Your task to perform on an android device: Open Youtube and go to "Your channel" Image 0: 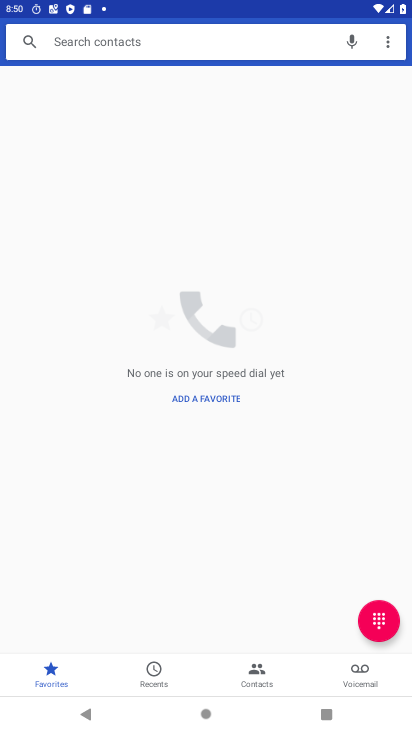
Step 0: press home button
Your task to perform on an android device: Open Youtube and go to "Your channel" Image 1: 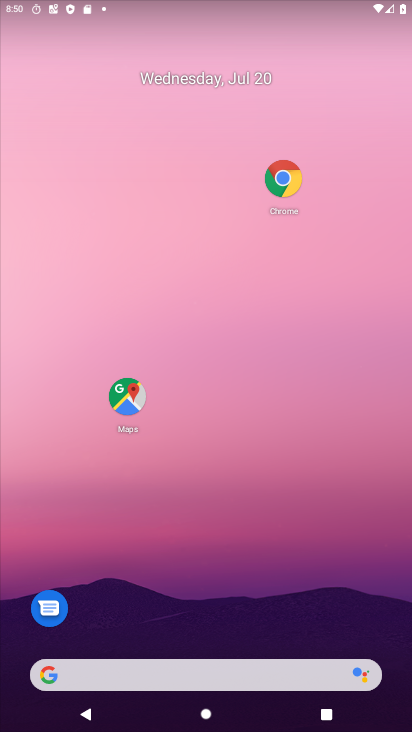
Step 1: drag from (247, 590) to (180, 87)
Your task to perform on an android device: Open Youtube and go to "Your channel" Image 2: 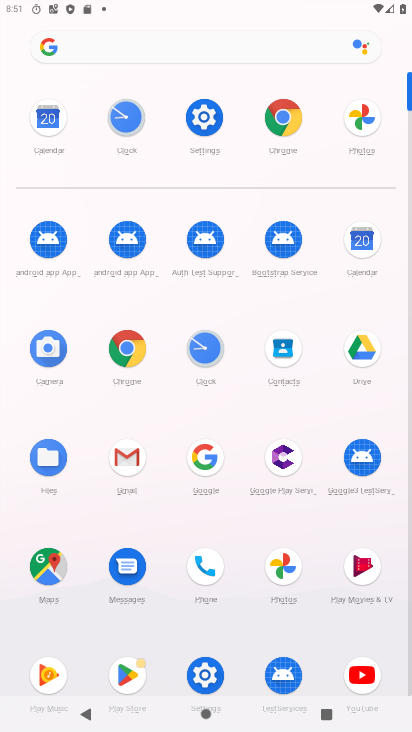
Step 2: click (379, 677)
Your task to perform on an android device: Open Youtube and go to "Your channel" Image 3: 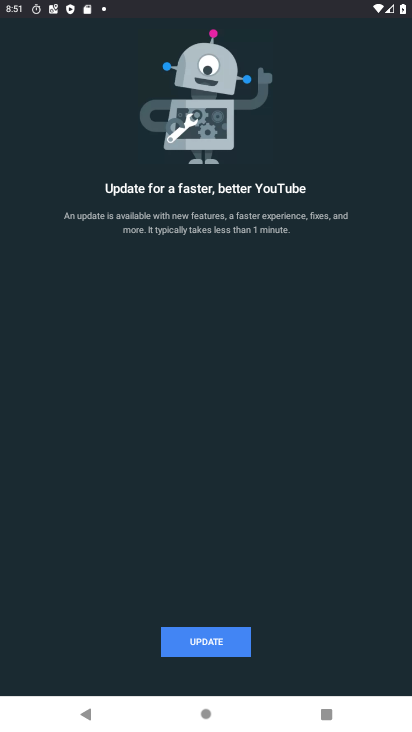
Step 3: click (226, 645)
Your task to perform on an android device: Open Youtube and go to "Your channel" Image 4: 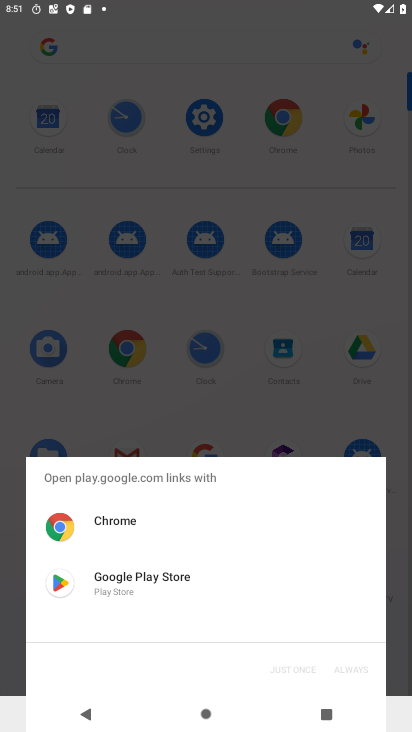
Step 4: click (199, 590)
Your task to perform on an android device: Open Youtube and go to "Your channel" Image 5: 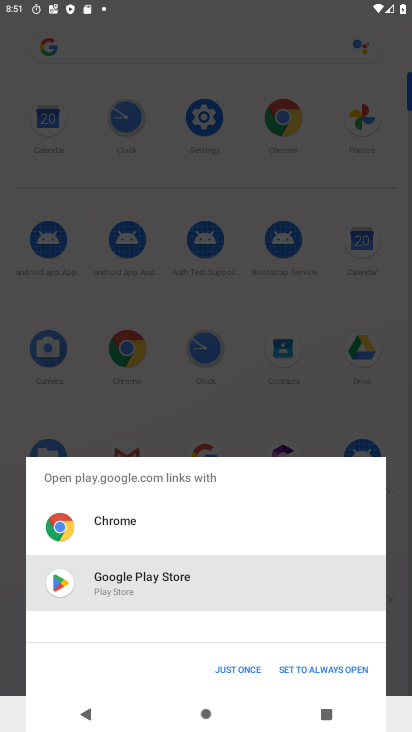
Step 5: click (234, 666)
Your task to perform on an android device: Open Youtube and go to "Your channel" Image 6: 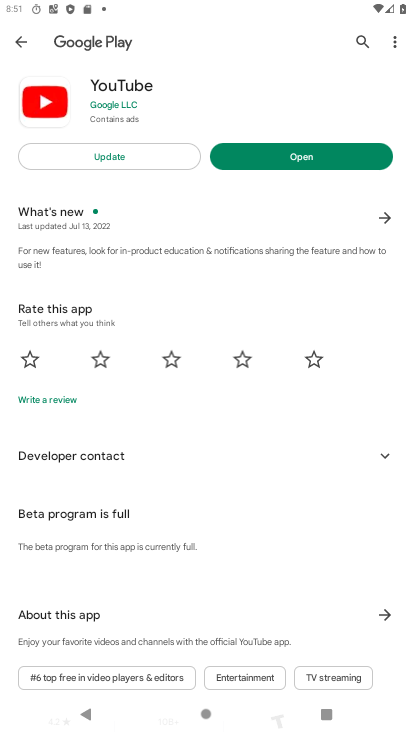
Step 6: click (114, 159)
Your task to perform on an android device: Open Youtube and go to "Your channel" Image 7: 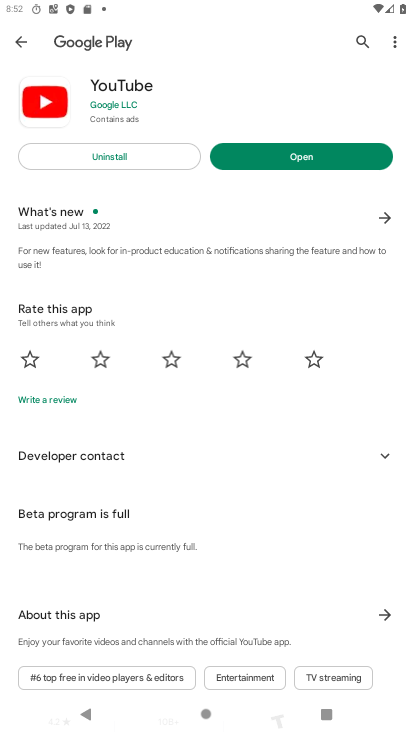
Step 7: click (295, 152)
Your task to perform on an android device: Open Youtube and go to "Your channel" Image 8: 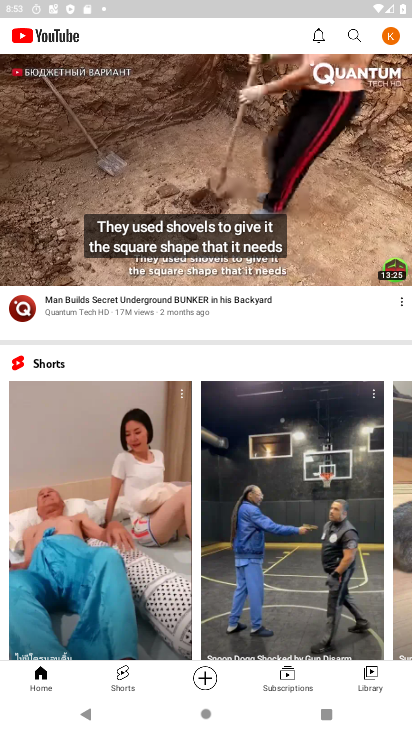
Step 8: click (390, 48)
Your task to perform on an android device: Open Youtube and go to "Your channel" Image 9: 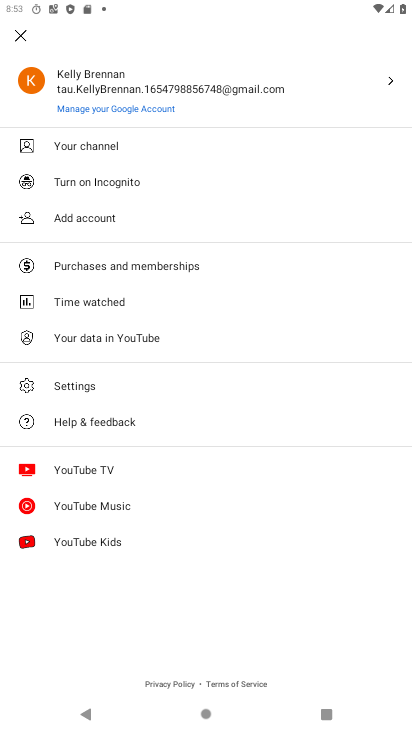
Step 9: click (156, 143)
Your task to perform on an android device: Open Youtube and go to "Your channel" Image 10: 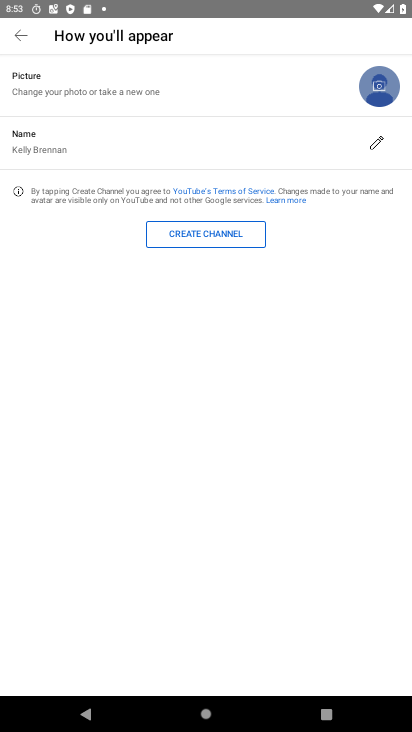
Step 10: task complete